Your task to perform on an android device: toggle data saver in the chrome app Image 0: 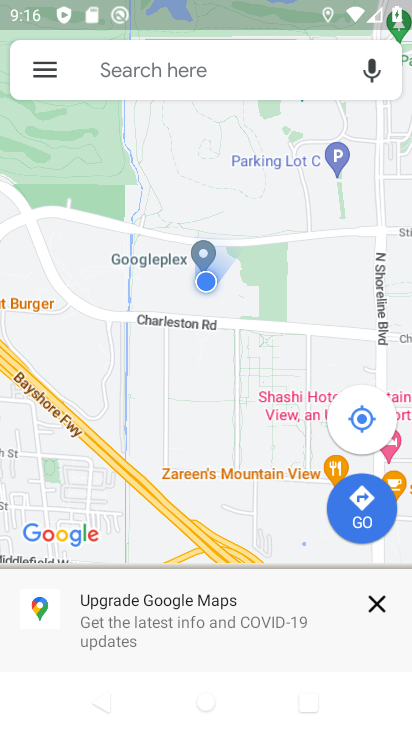
Step 0: press home button
Your task to perform on an android device: toggle data saver in the chrome app Image 1: 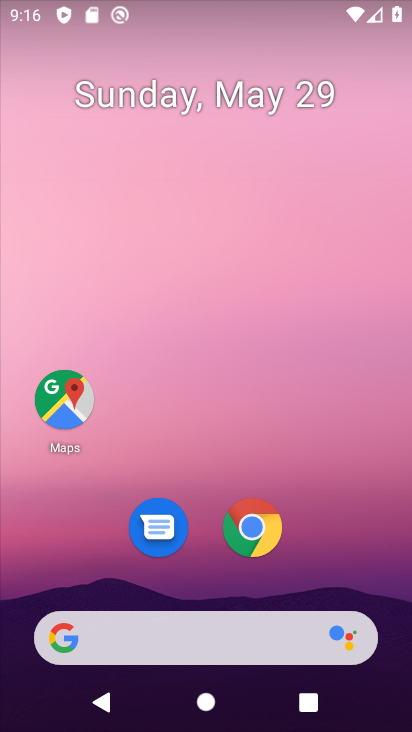
Step 1: click (256, 540)
Your task to perform on an android device: toggle data saver in the chrome app Image 2: 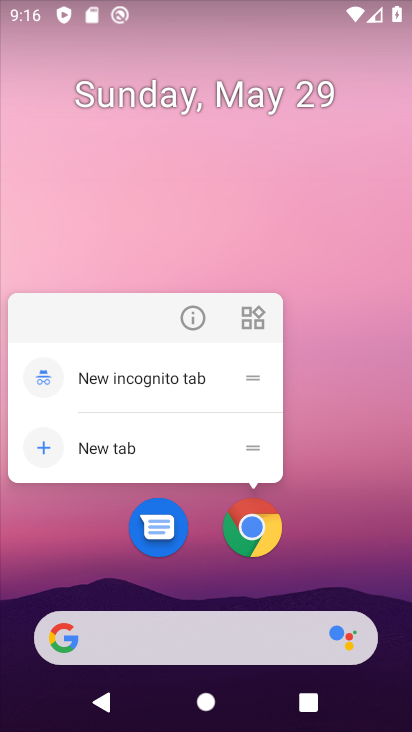
Step 2: click (255, 531)
Your task to perform on an android device: toggle data saver in the chrome app Image 3: 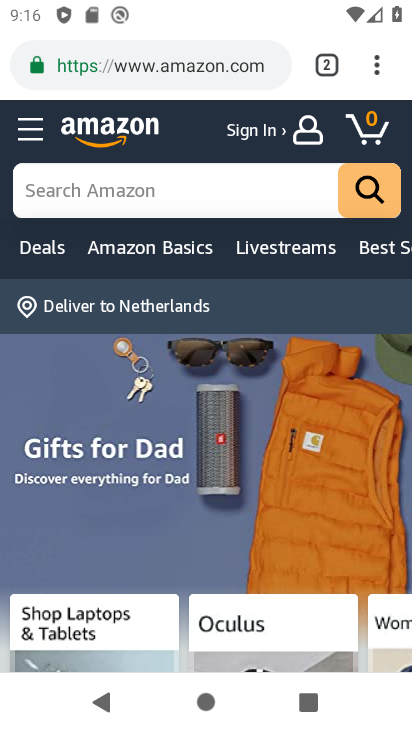
Step 3: drag from (376, 62) to (269, 579)
Your task to perform on an android device: toggle data saver in the chrome app Image 4: 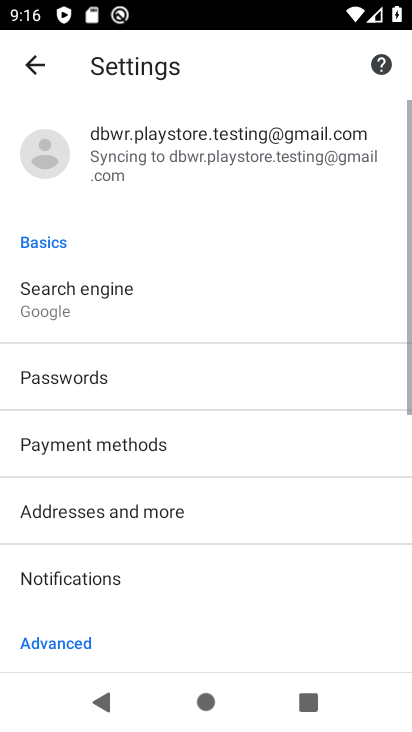
Step 4: drag from (242, 651) to (330, 57)
Your task to perform on an android device: toggle data saver in the chrome app Image 5: 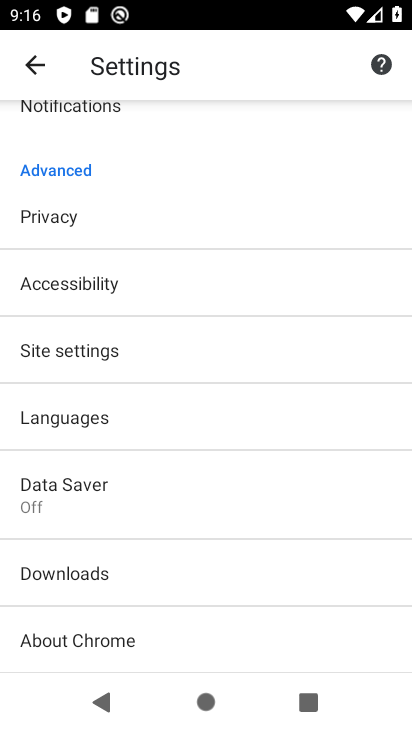
Step 5: click (71, 488)
Your task to perform on an android device: toggle data saver in the chrome app Image 6: 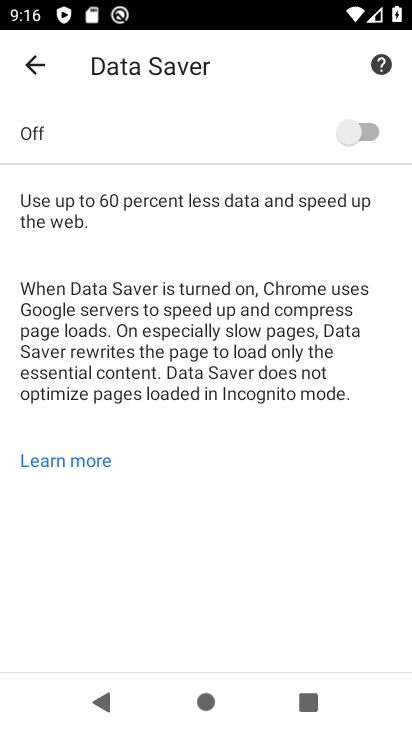
Step 6: click (375, 128)
Your task to perform on an android device: toggle data saver in the chrome app Image 7: 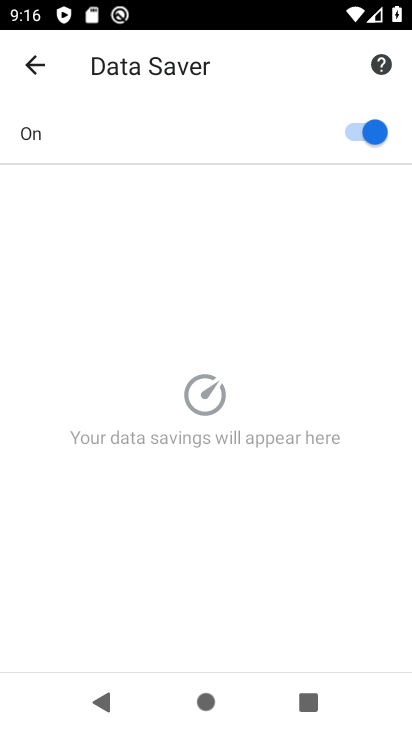
Step 7: task complete